Your task to perform on an android device: Search for sushi restaurants on Maps Image 0: 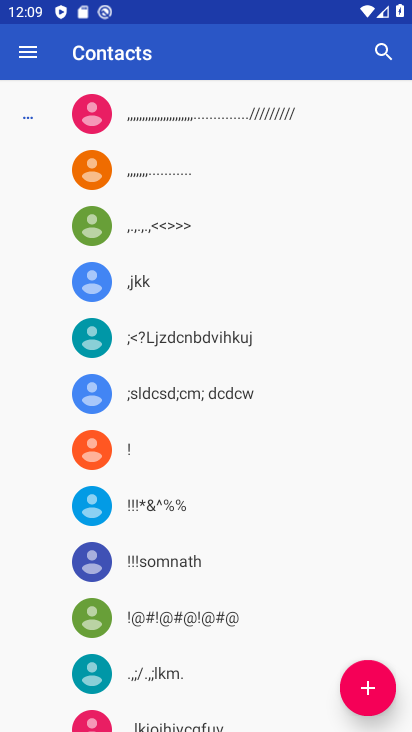
Step 0: press home button
Your task to perform on an android device: Search for sushi restaurants on Maps Image 1: 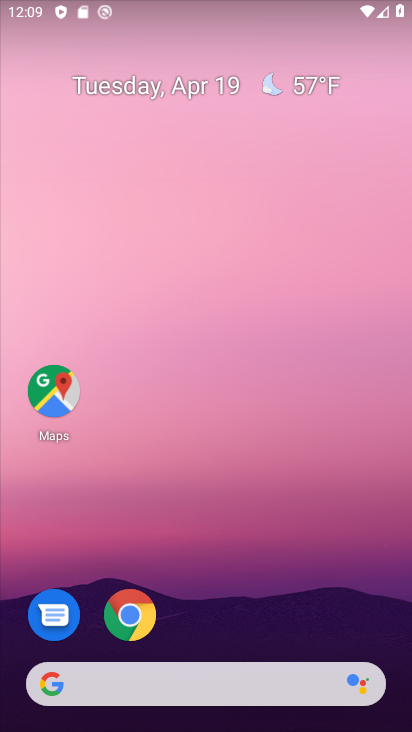
Step 1: click (62, 413)
Your task to perform on an android device: Search for sushi restaurants on Maps Image 2: 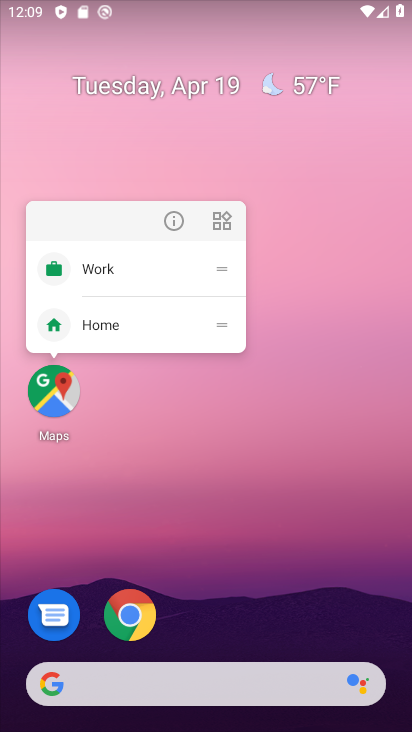
Step 2: click (57, 391)
Your task to perform on an android device: Search for sushi restaurants on Maps Image 3: 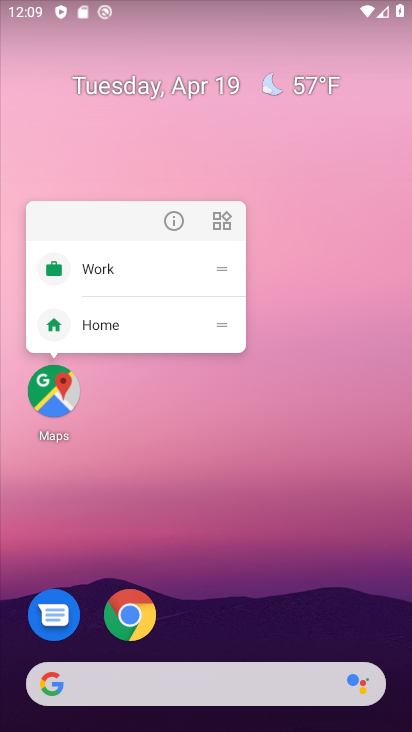
Step 3: click (57, 391)
Your task to perform on an android device: Search for sushi restaurants on Maps Image 4: 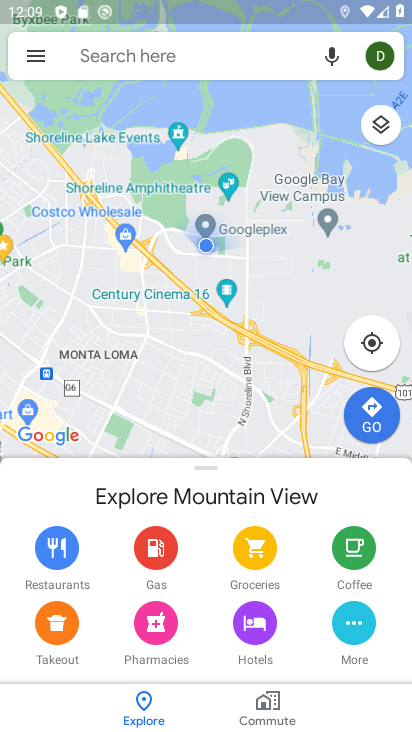
Step 4: click (243, 65)
Your task to perform on an android device: Search for sushi restaurants on Maps Image 5: 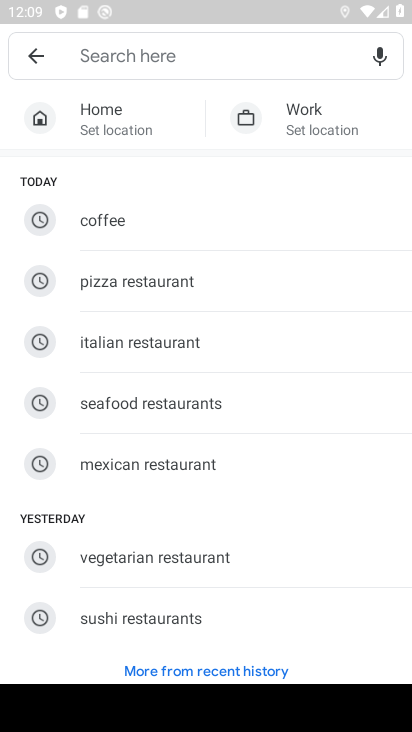
Step 5: type "sushi restaurants"
Your task to perform on an android device: Search for sushi restaurants on Maps Image 6: 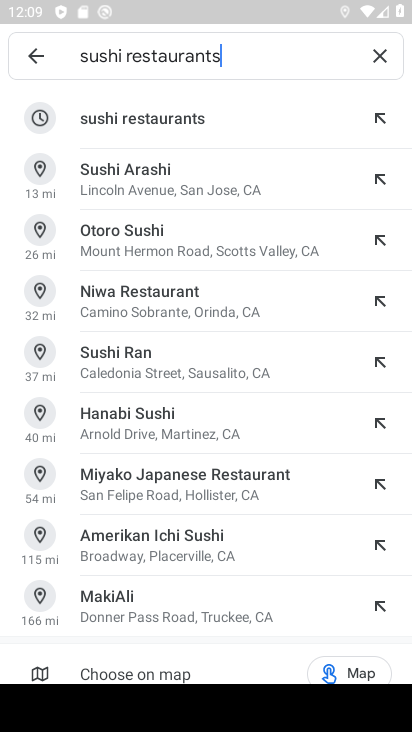
Step 6: click (194, 124)
Your task to perform on an android device: Search for sushi restaurants on Maps Image 7: 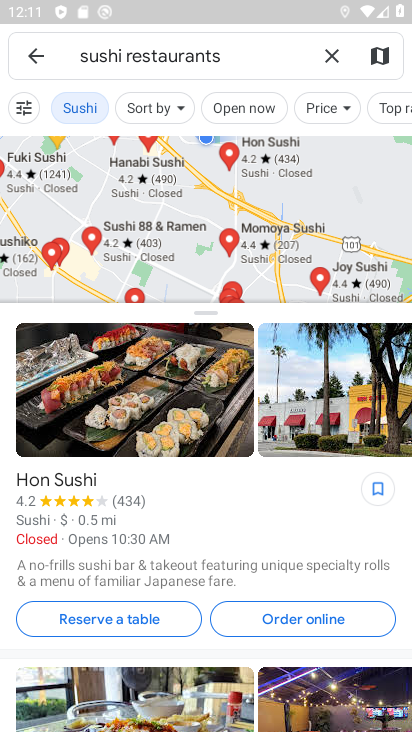
Step 7: task complete